Your task to perform on an android device: Open Yahoo.com Image 0: 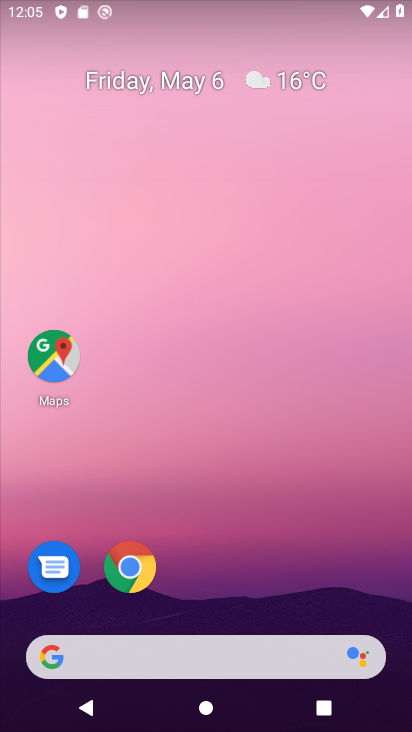
Step 0: drag from (298, 564) to (253, 49)
Your task to perform on an android device: Open Yahoo.com Image 1: 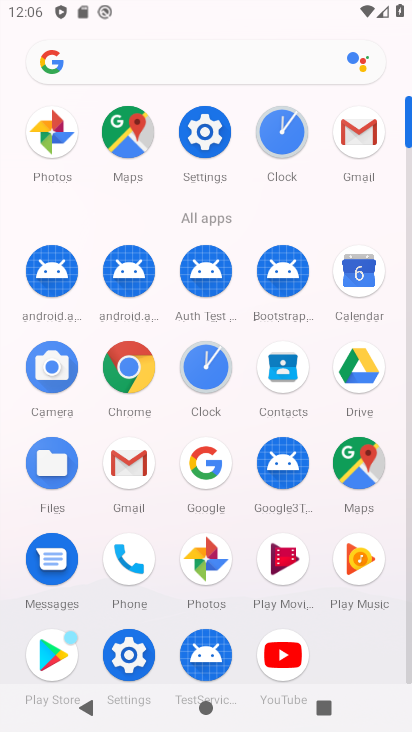
Step 1: click (129, 373)
Your task to perform on an android device: Open Yahoo.com Image 2: 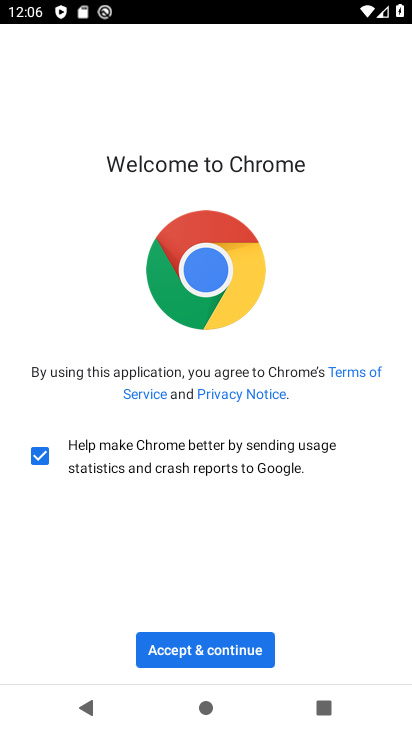
Step 2: click (213, 636)
Your task to perform on an android device: Open Yahoo.com Image 3: 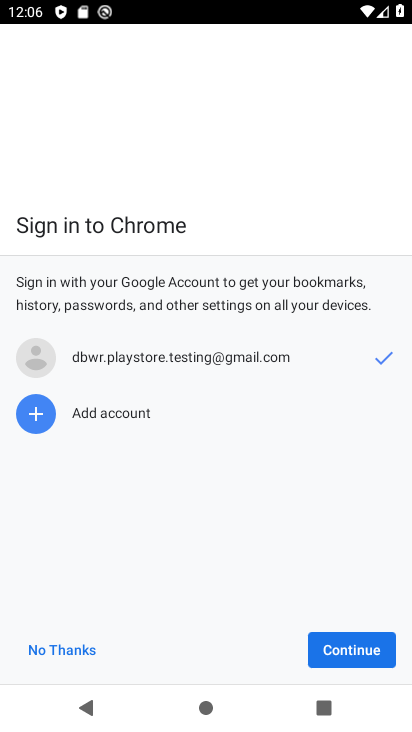
Step 3: click (344, 648)
Your task to perform on an android device: Open Yahoo.com Image 4: 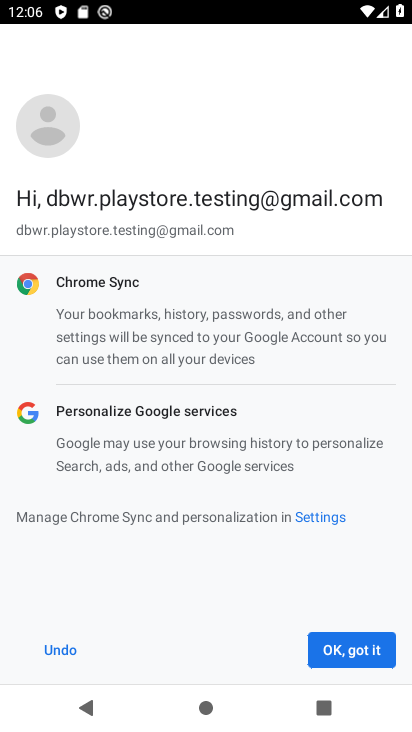
Step 4: click (344, 648)
Your task to perform on an android device: Open Yahoo.com Image 5: 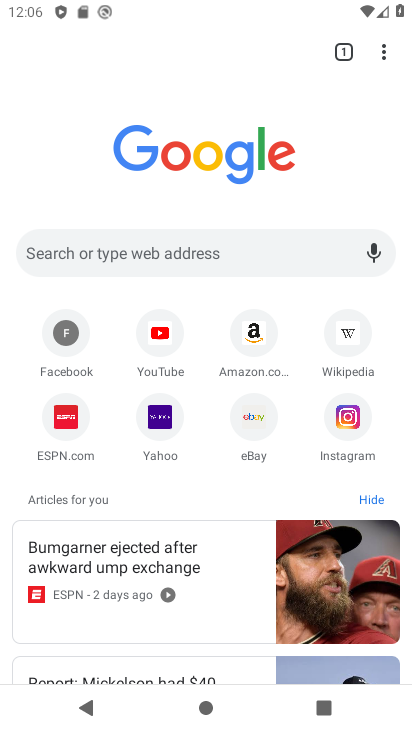
Step 5: click (168, 415)
Your task to perform on an android device: Open Yahoo.com Image 6: 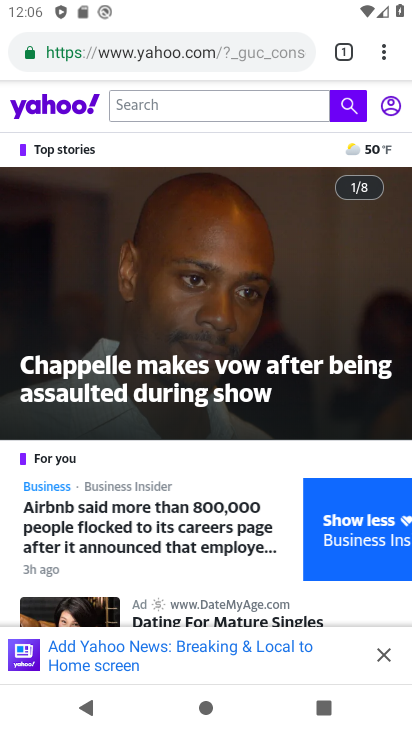
Step 6: task complete